Your task to perform on an android device: Do I have any events tomorrow? Image 0: 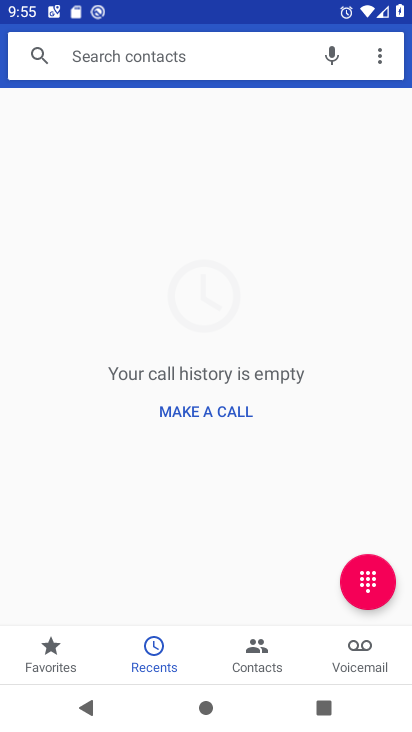
Step 0: press home button
Your task to perform on an android device: Do I have any events tomorrow? Image 1: 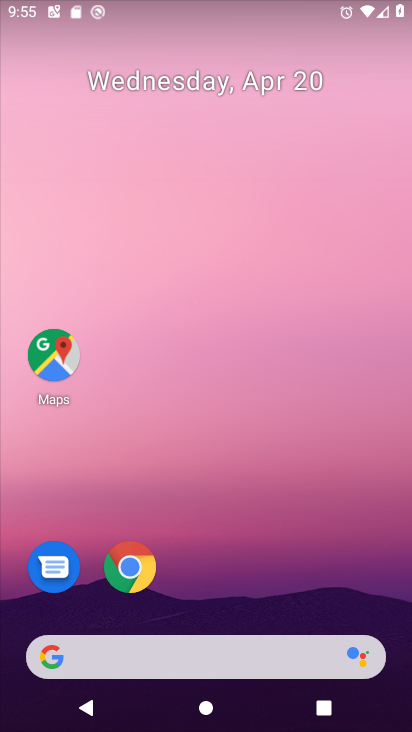
Step 1: click (407, 607)
Your task to perform on an android device: Do I have any events tomorrow? Image 2: 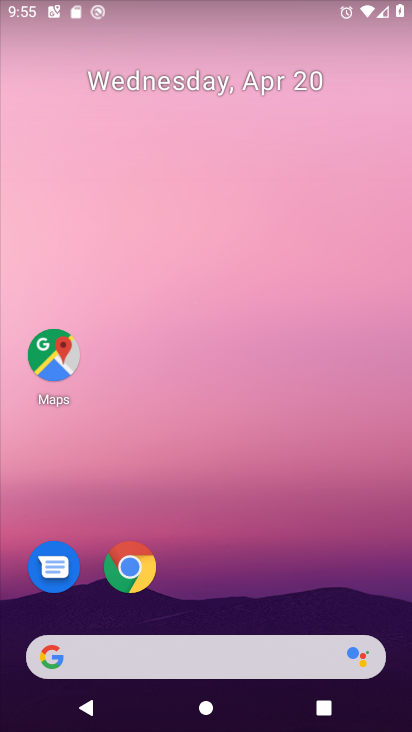
Step 2: drag from (298, 595) to (300, 225)
Your task to perform on an android device: Do I have any events tomorrow? Image 3: 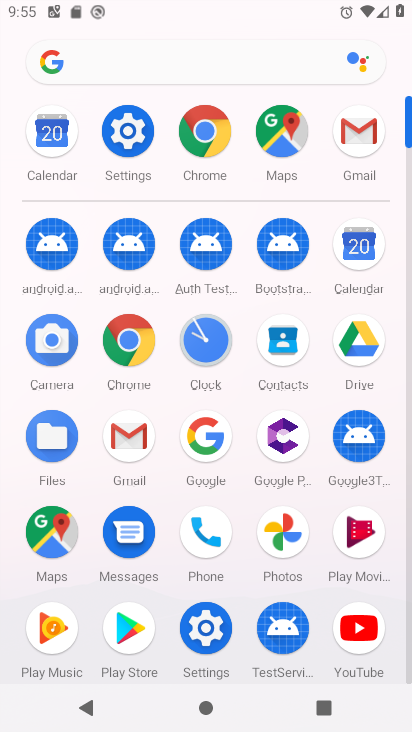
Step 3: click (363, 250)
Your task to perform on an android device: Do I have any events tomorrow? Image 4: 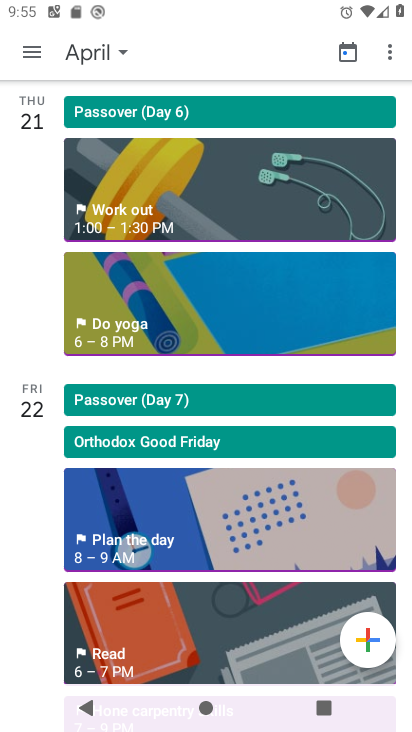
Step 4: click (191, 493)
Your task to perform on an android device: Do I have any events tomorrow? Image 5: 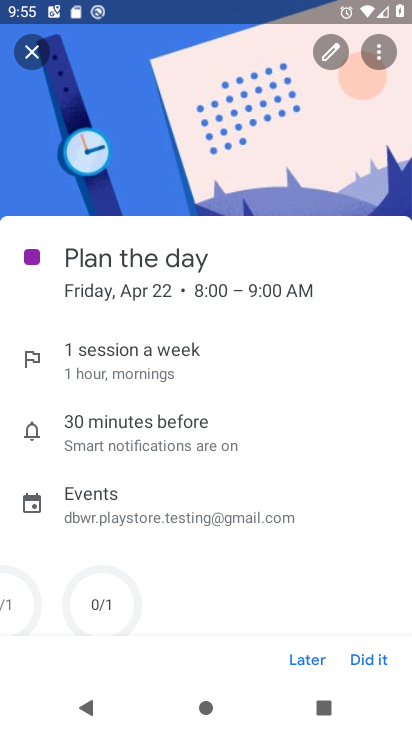
Step 5: task complete